Your task to perform on an android device: turn on wifi Image 0: 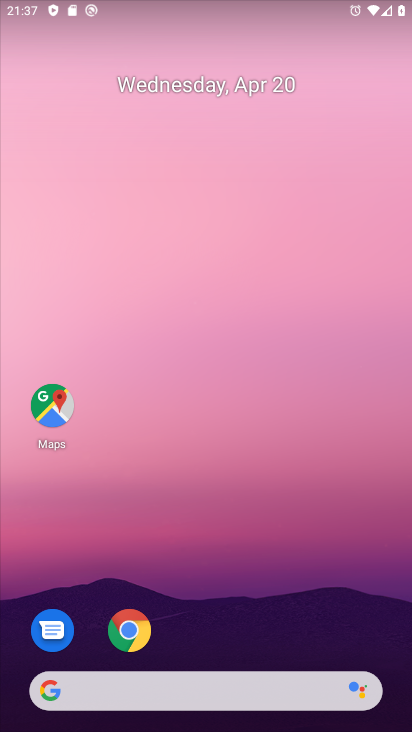
Step 0: drag from (319, 543) to (261, 78)
Your task to perform on an android device: turn on wifi Image 1: 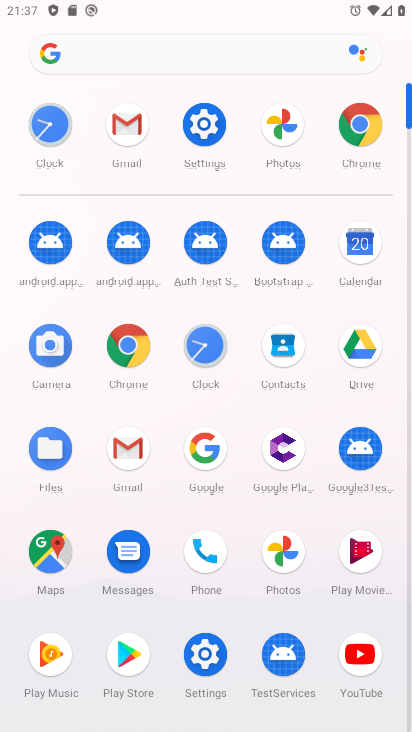
Step 1: click (209, 124)
Your task to perform on an android device: turn on wifi Image 2: 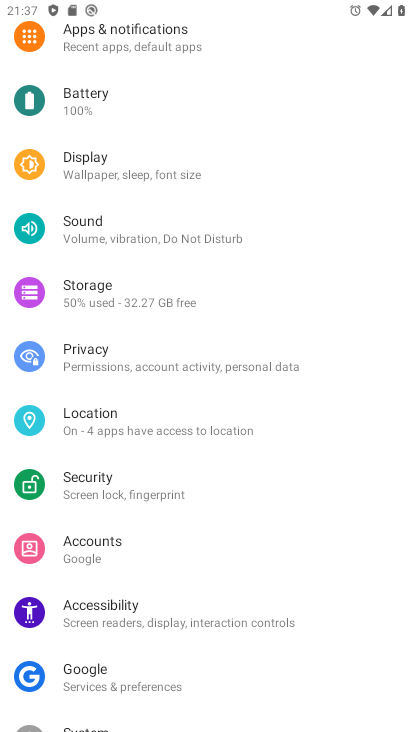
Step 2: drag from (171, 100) to (193, 518)
Your task to perform on an android device: turn on wifi Image 3: 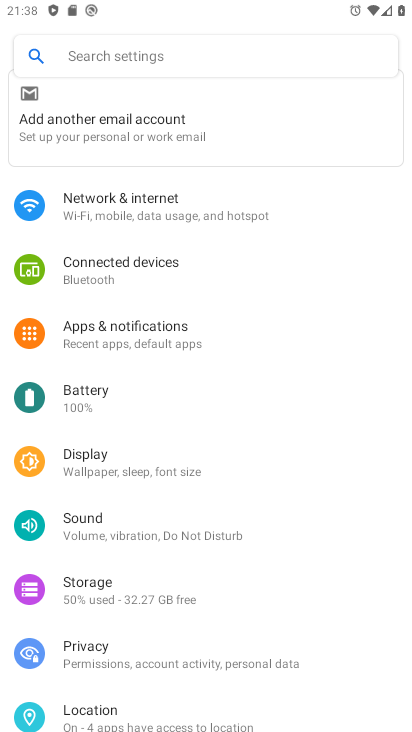
Step 3: click (90, 204)
Your task to perform on an android device: turn on wifi Image 4: 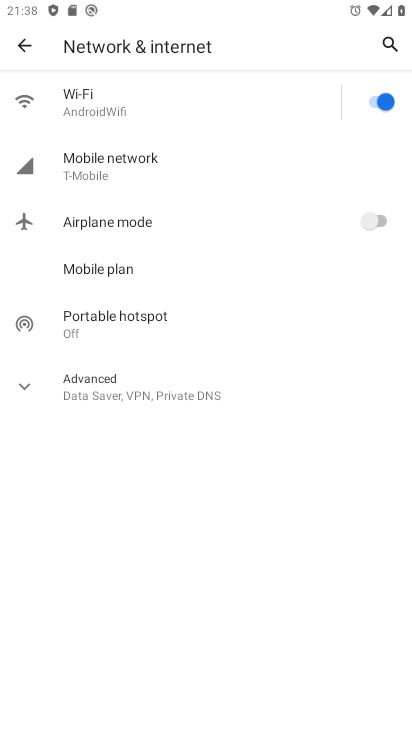
Step 4: task complete